Your task to perform on an android device: Open Google Image 0: 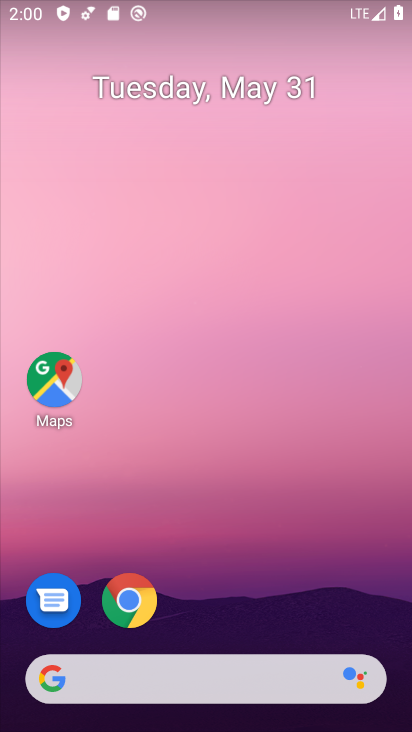
Step 0: drag from (213, 516) to (261, 2)
Your task to perform on an android device: Open Google Image 1: 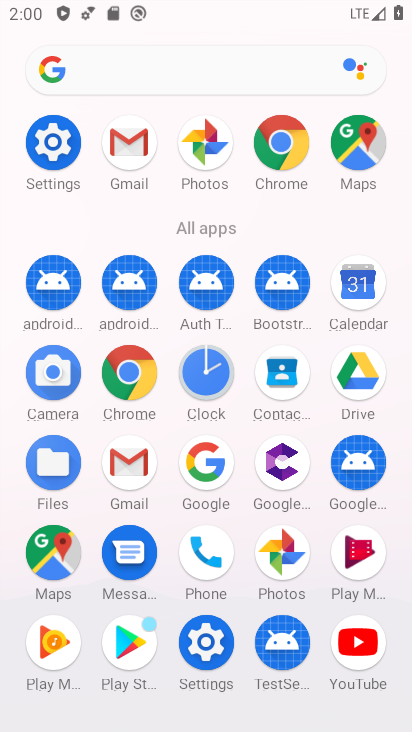
Step 1: click (201, 457)
Your task to perform on an android device: Open Google Image 2: 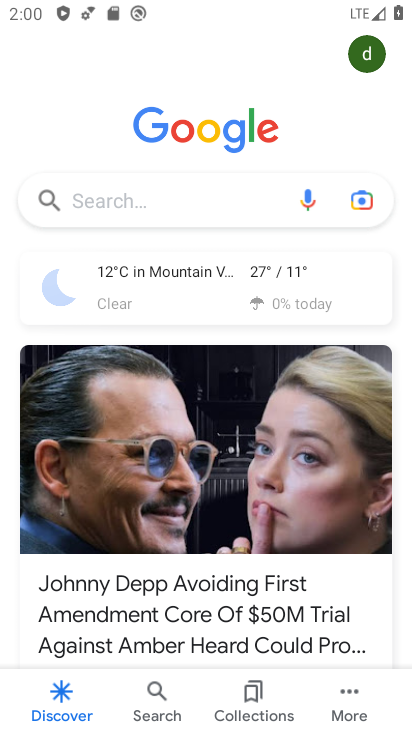
Step 2: task complete